Your task to perform on an android device: move an email to a new category in the gmail app Image 0: 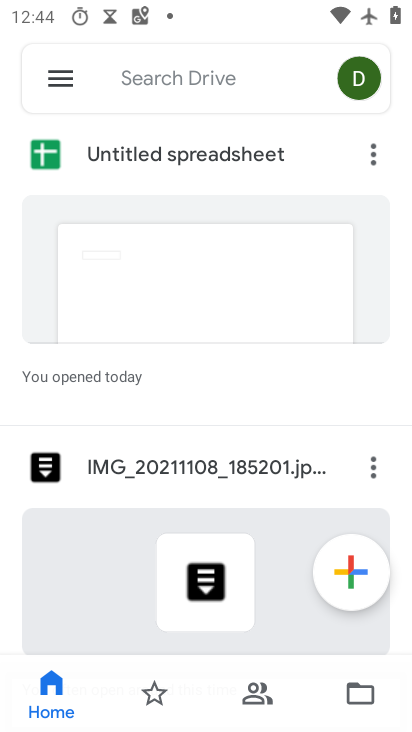
Step 0: press home button
Your task to perform on an android device: move an email to a new category in the gmail app Image 1: 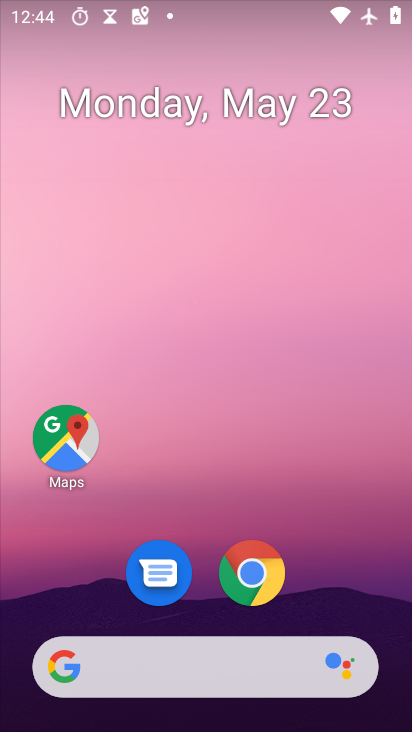
Step 1: drag from (170, 661) to (281, 107)
Your task to perform on an android device: move an email to a new category in the gmail app Image 2: 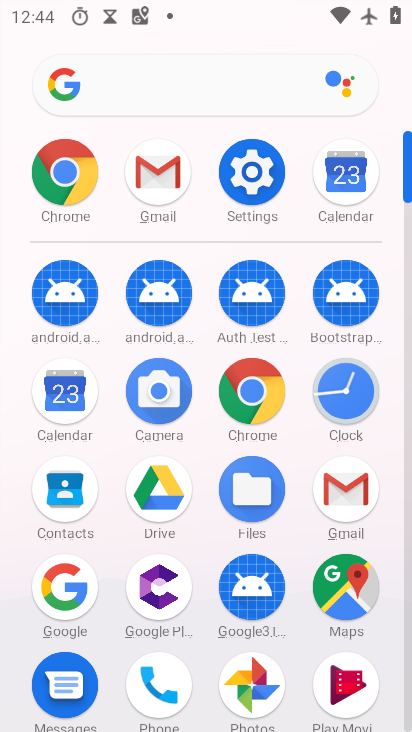
Step 2: click (141, 191)
Your task to perform on an android device: move an email to a new category in the gmail app Image 3: 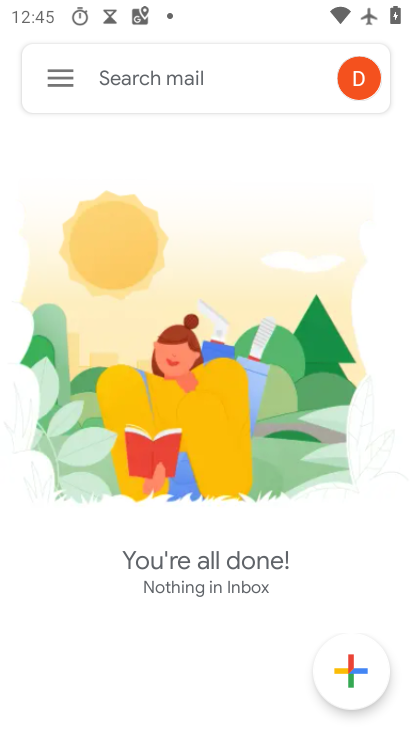
Step 3: task complete